Your task to perform on an android device: open sync settings in chrome Image 0: 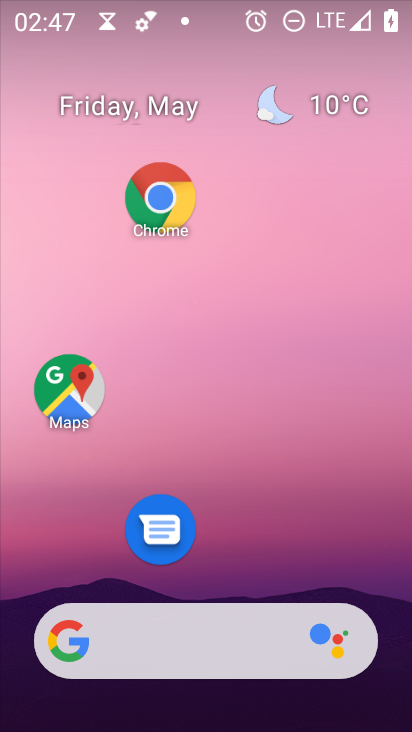
Step 0: drag from (244, 241) to (240, 175)
Your task to perform on an android device: open sync settings in chrome Image 1: 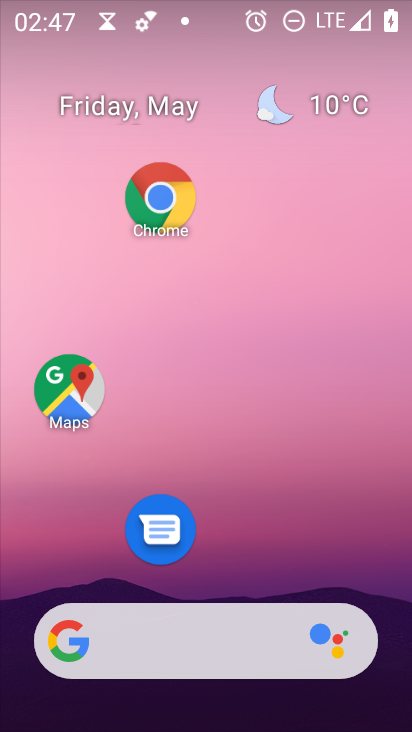
Step 1: drag from (228, 462) to (216, 208)
Your task to perform on an android device: open sync settings in chrome Image 2: 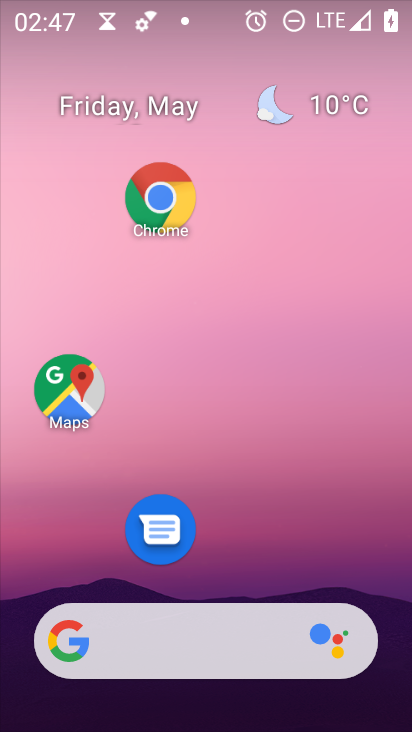
Step 2: drag from (242, 565) to (242, 229)
Your task to perform on an android device: open sync settings in chrome Image 3: 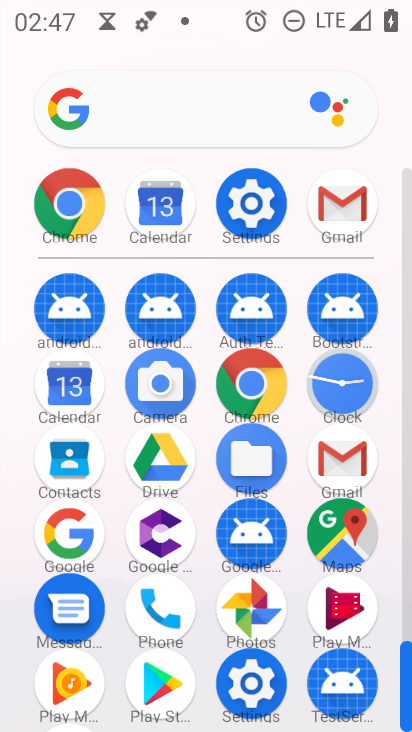
Step 3: click (256, 209)
Your task to perform on an android device: open sync settings in chrome Image 4: 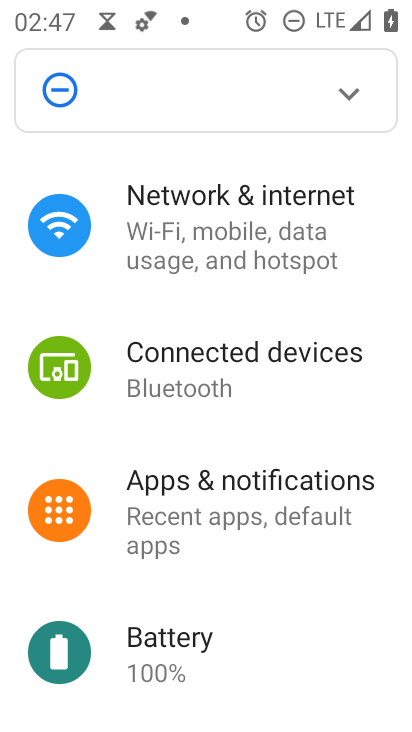
Step 4: press back button
Your task to perform on an android device: open sync settings in chrome Image 5: 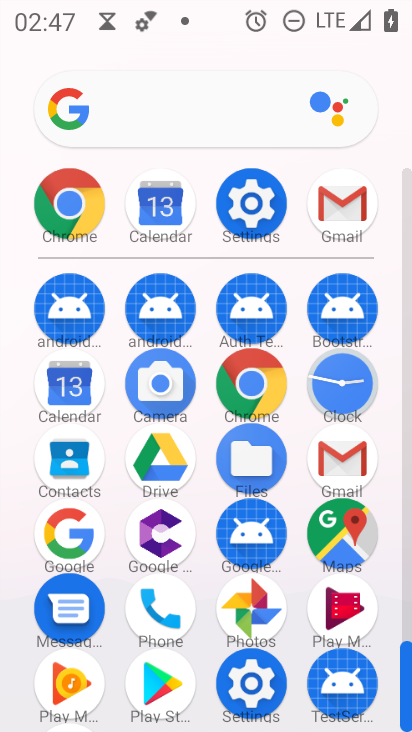
Step 5: click (69, 196)
Your task to perform on an android device: open sync settings in chrome Image 6: 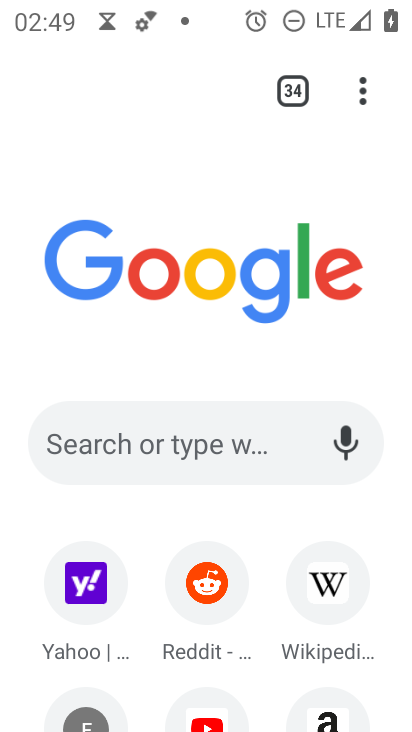
Step 6: click (350, 86)
Your task to perform on an android device: open sync settings in chrome Image 7: 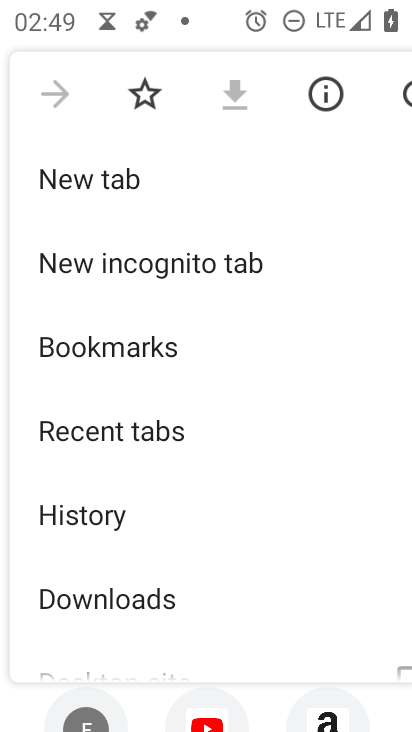
Step 7: drag from (183, 563) to (195, 221)
Your task to perform on an android device: open sync settings in chrome Image 8: 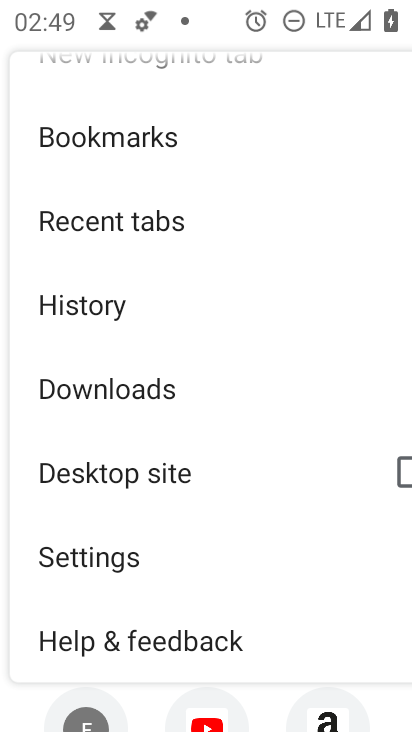
Step 8: click (150, 545)
Your task to perform on an android device: open sync settings in chrome Image 9: 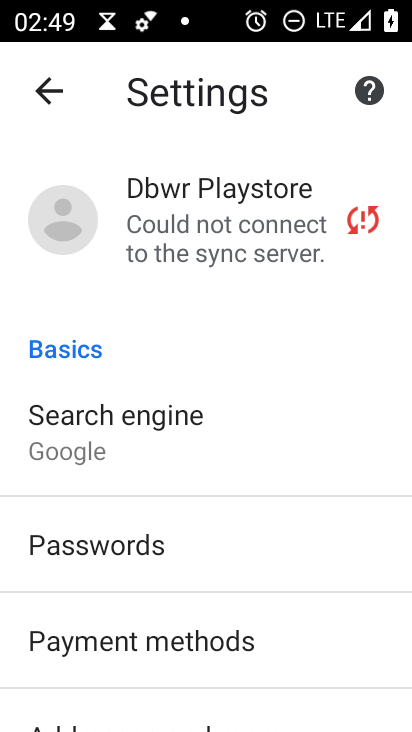
Step 9: click (115, 411)
Your task to perform on an android device: open sync settings in chrome Image 10: 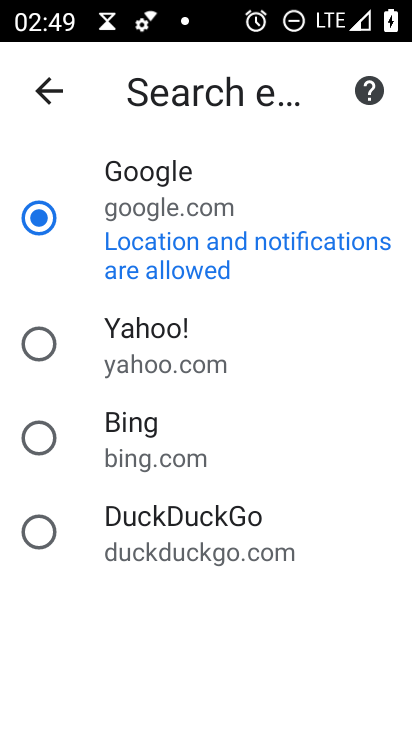
Step 10: click (58, 330)
Your task to perform on an android device: open sync settings in chrome Image 11: 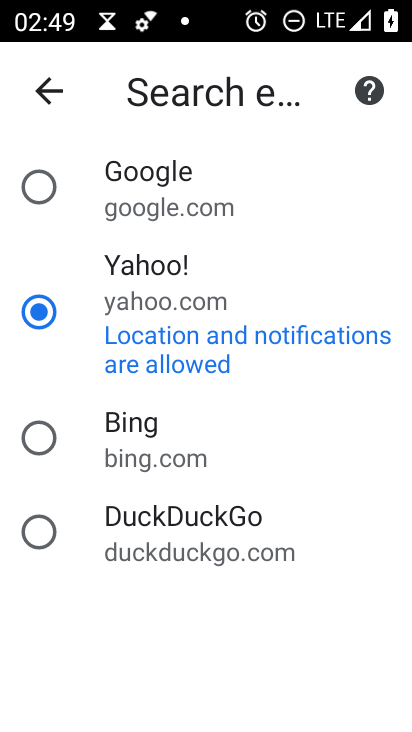
Step 11: task complete